Your task to perform on an android device: all mails in gmail Image 0: 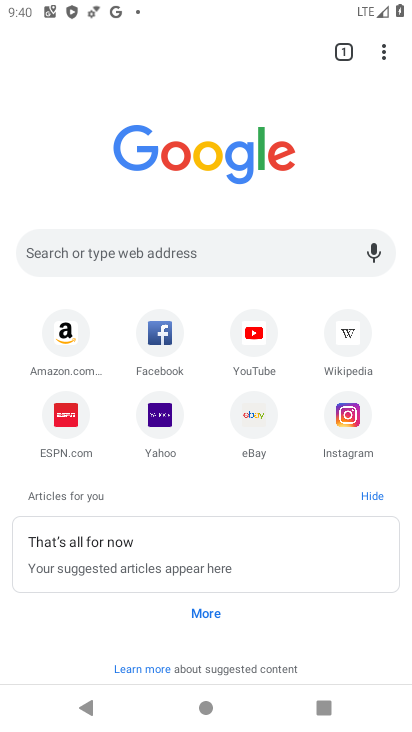
Step 0: press home button
Your task to perform on an android device: all mails in gmail Image 1: 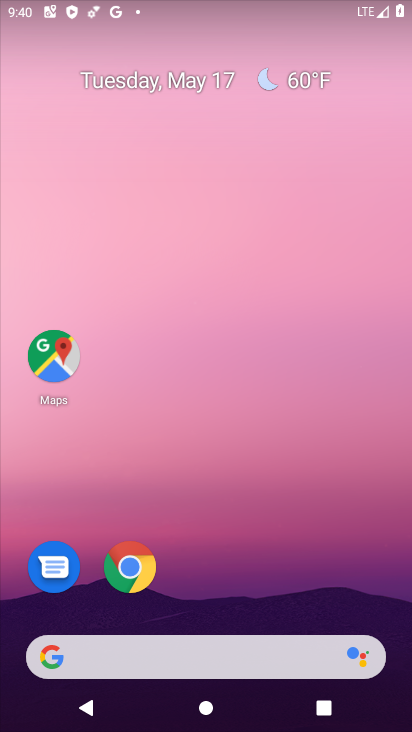
Step 1: drag from (392, 631) to (308, 43)
Your task to perform on an android device: all mails in gmail Image 2: 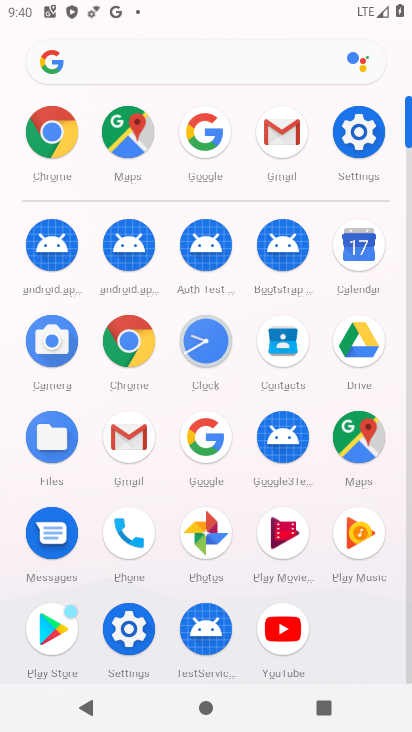
Step 2: click (298, 125)
Your task to perform on an android device: all mails in gmail Image 3: 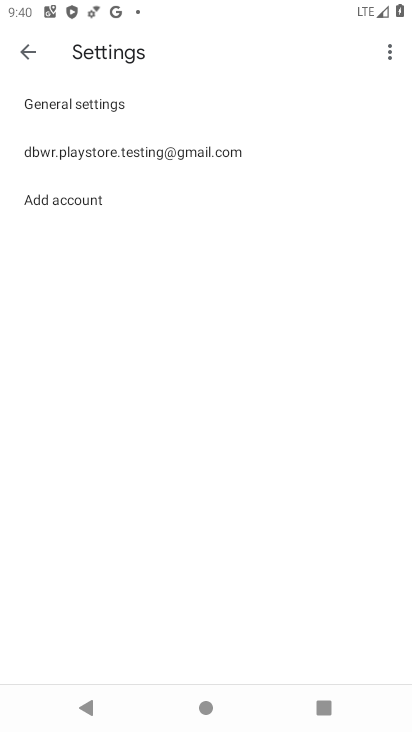
Step 3: press back button
Your task to perform on an android device: all mails in gmail Image 4: 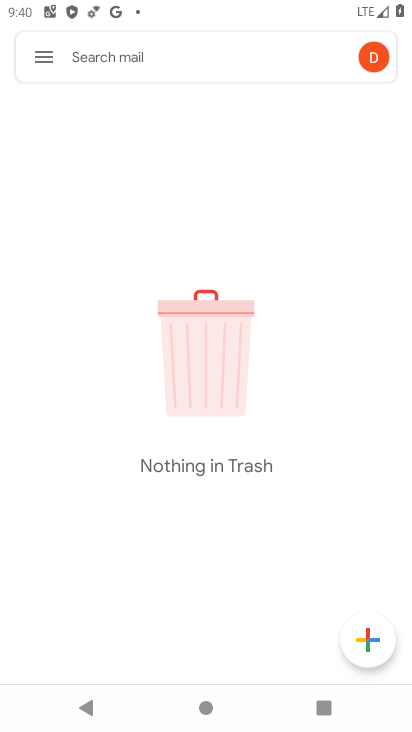
Step 4: click (39, 56)
Your task to perform on an android device: all mails in gmail Image 5: 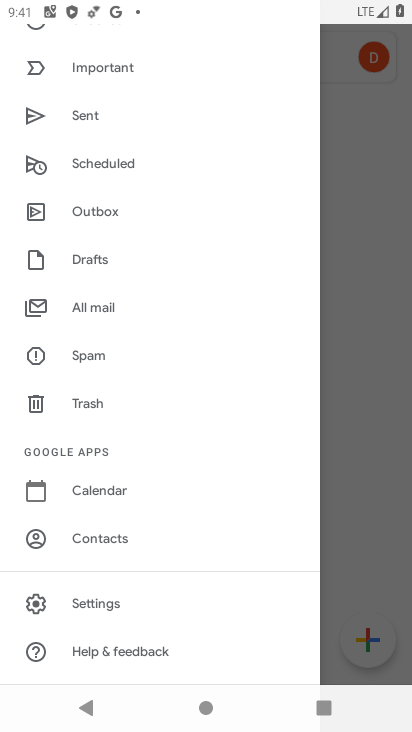
Step 5: click (136, 295)
Your task to perform on an android device: all mails in gmail Image 6: 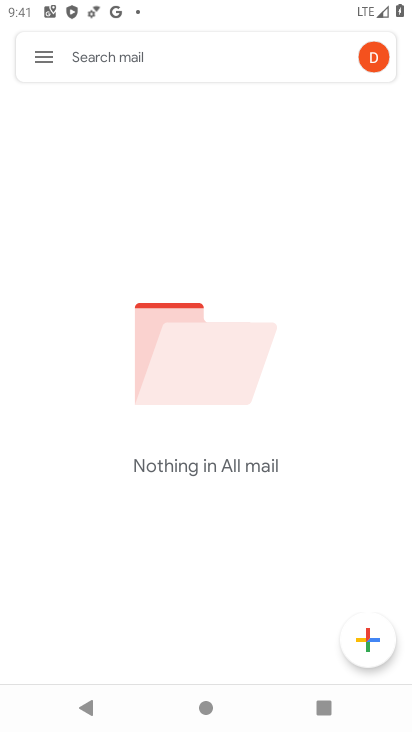
Step 6: task complete